Your task to perform on an android device: Open the map Image 0: 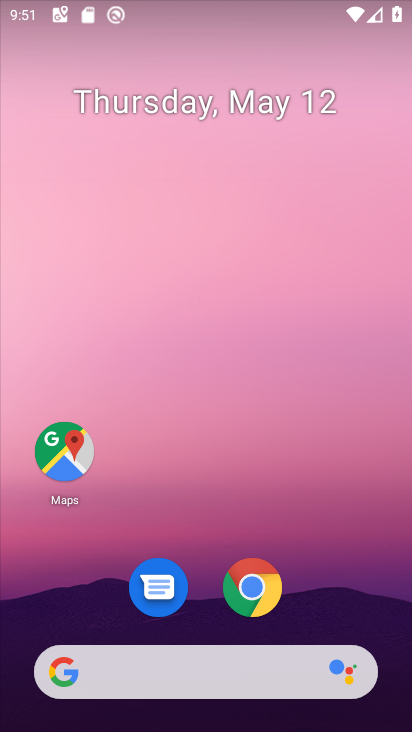
Step 0: drag from (398, 649) to (59, 11)
Your task to perform on an android device: Open the map Image 1: 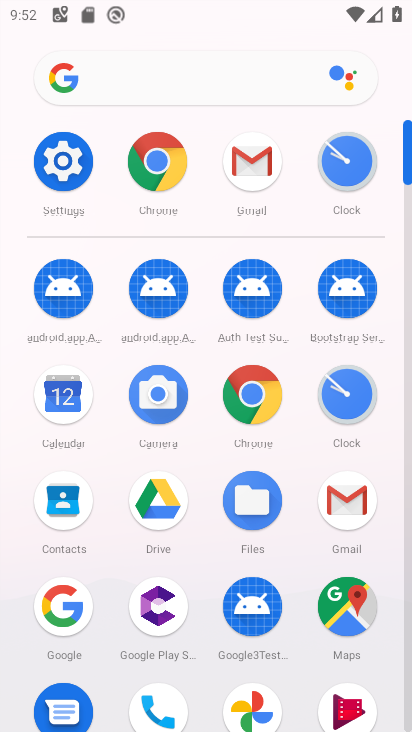
Step 1: click (342, 606)
Your task to perform on an android device: Open the map Image 2: 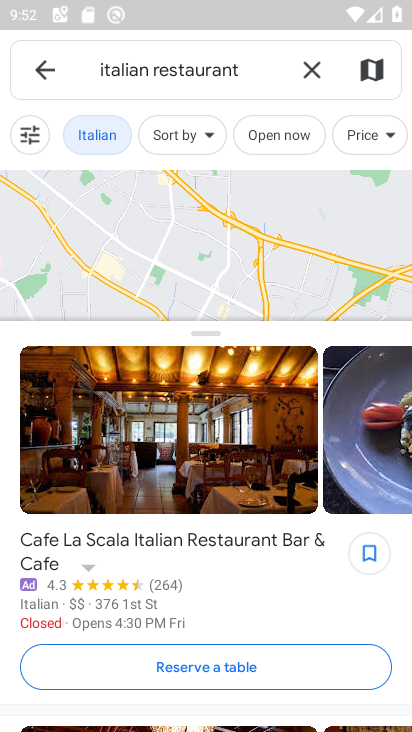
Step 2: click (312, 71)
Your task to perform on an android device: Open the map Image 3: 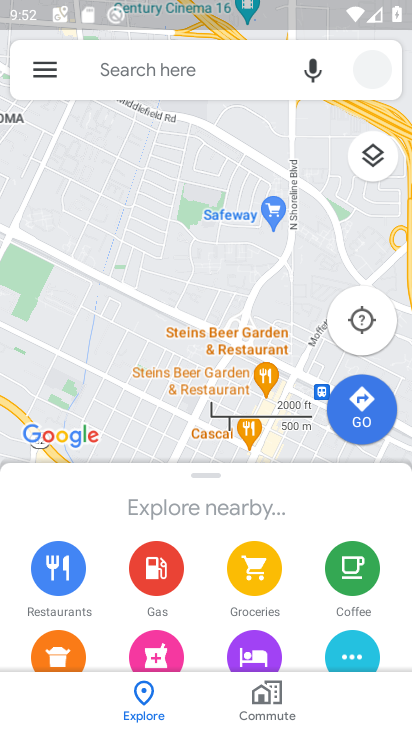
Step 3: task complete